Your task to perform on an android device: When is my next appointment? Image 0: 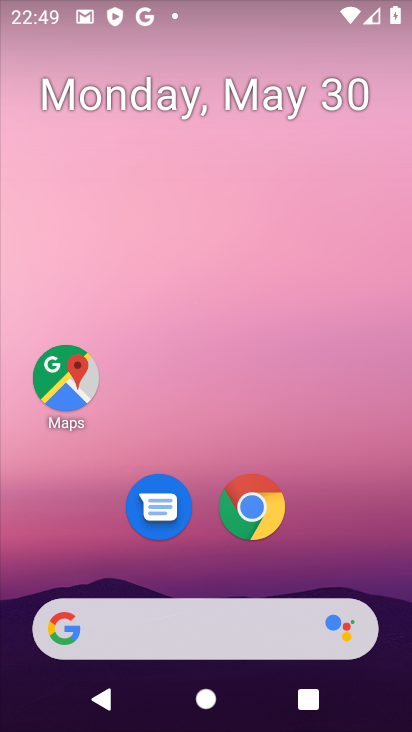
Step 0: drag from (360, 556) to (340, 175)
Your task to perform on an android device: When is my next appointment? Image 1: 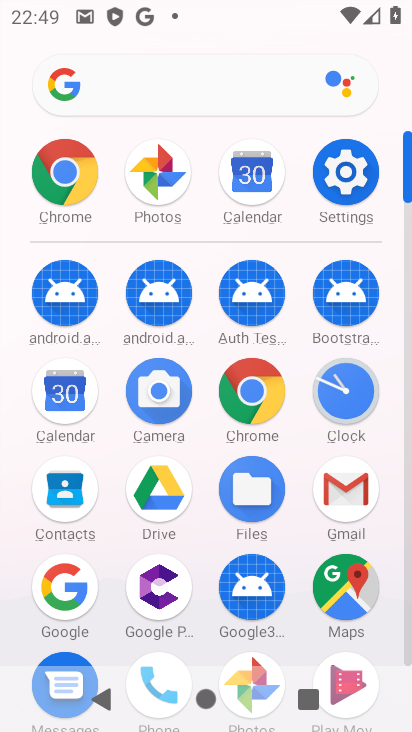
Step 1: click (69, 406)
Your task to perform on an android device: When is my next appointment? Image 2: 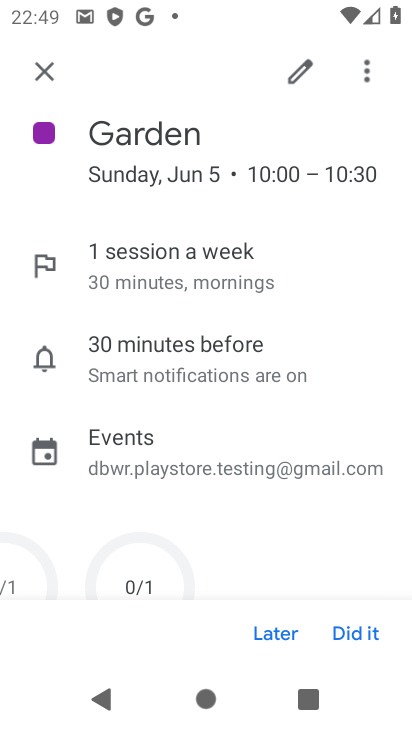
Step 2: click (35, 64)
Your task to perform on an android device: When is my next appointment? Image 3: 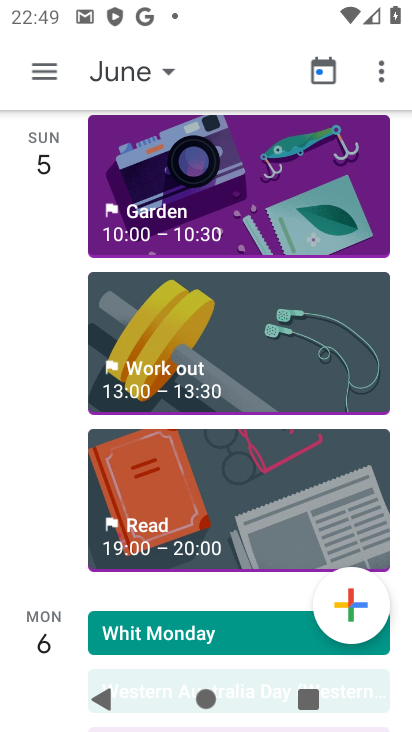
Step 3: click (172, 78)
Your task to perform on an android device: When is my next appointment? Image 4: 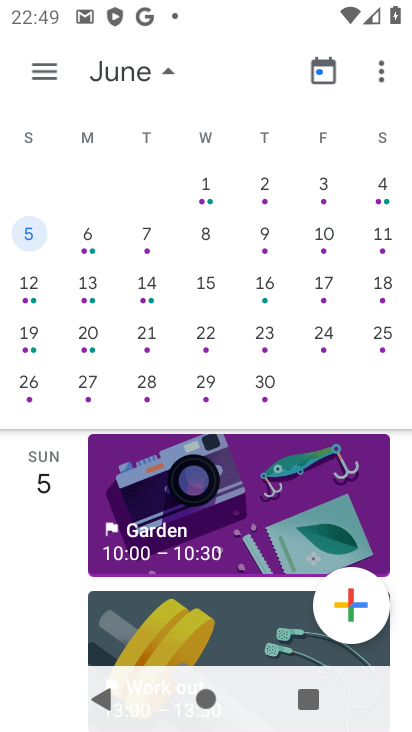
Step 4: click (204, 181)
Your task to perform on an android device: When is my next appointment? Image 5: 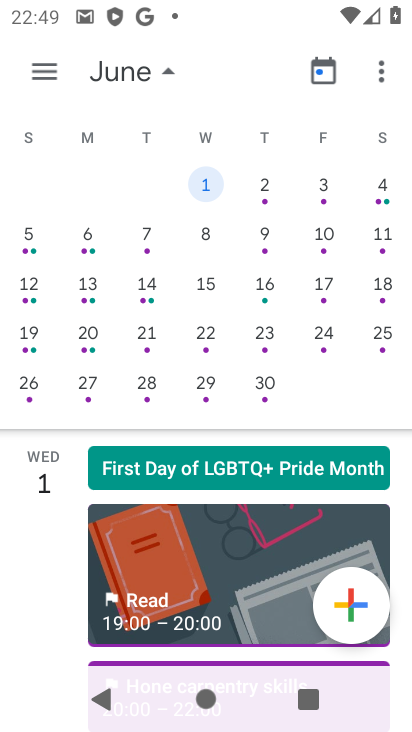
Step 5: click (201, 550)
Your task to perform on an android device: When is my next appointment? Image 6: 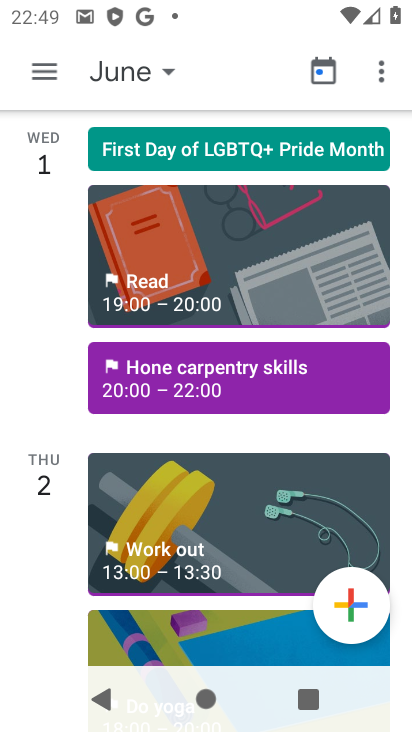
Step 6: click (216, 377)
Your task to perform on an android device: When is my next appointment? Image 7: 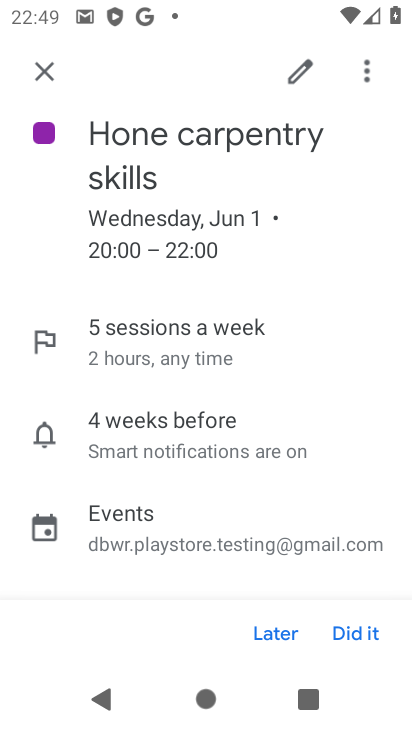
Step 7: task complete